Your task to perform on an android device: Open Youtube and go to the subscriptions tab Image 0: 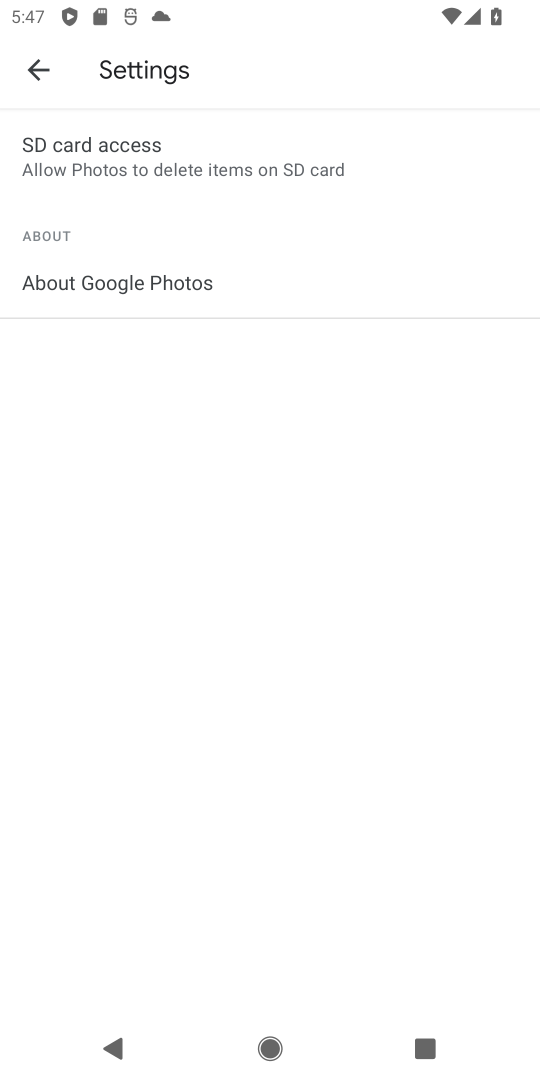
Step 0: press back button
Your task to perform on an android device: Open Youtube and go to the subscriptions tab Image 1: 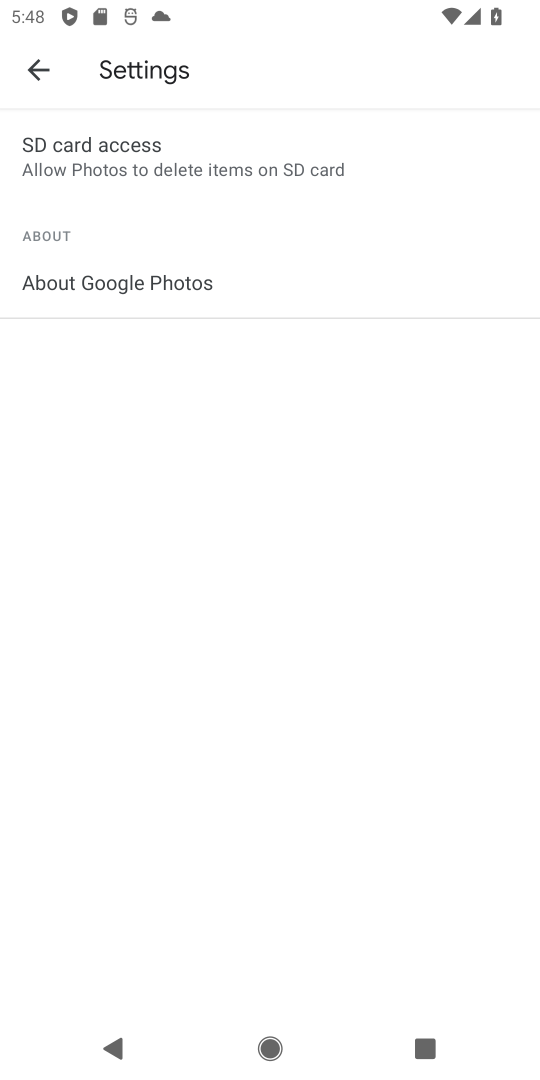
Step 1: click (29, 70)
Your task to perform on an android device: Open Youtube and go to the subscriptions tab Image 2: 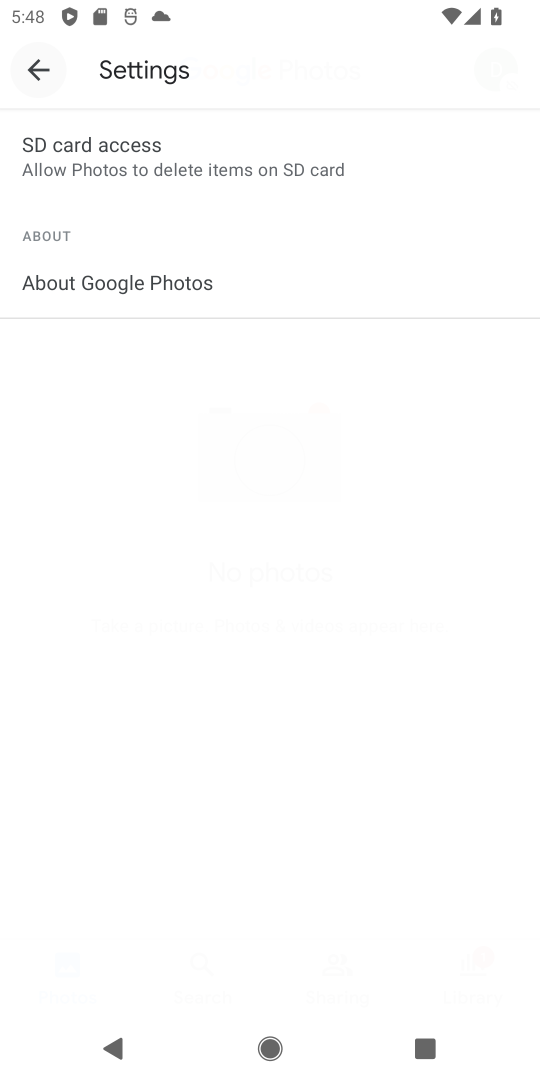
Step 2: press back button
Your task to perform on an android device: Open Youtube and go to the subscriptions tab Image 3: 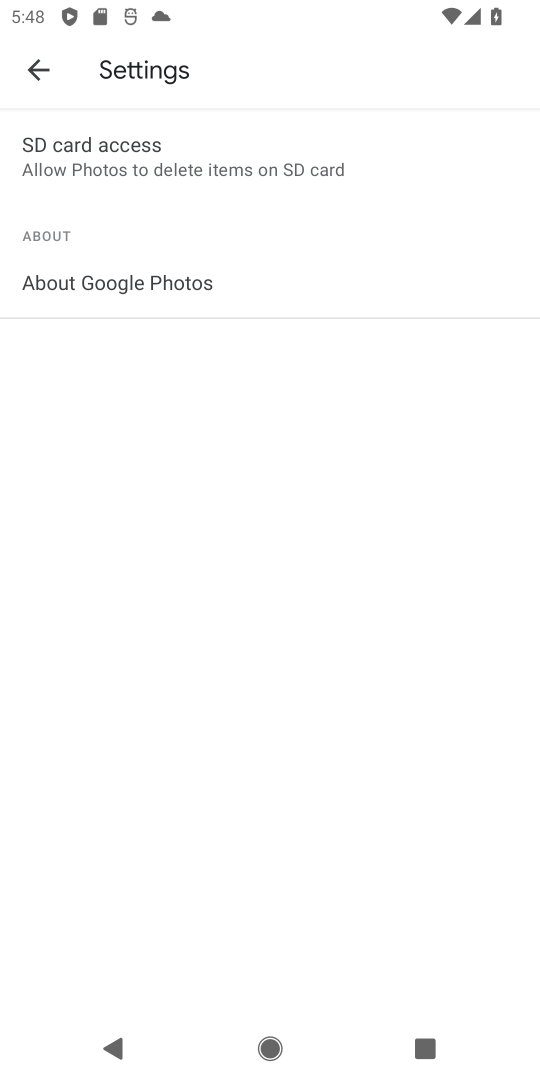
Step 3: press back button
Your task to perform on an android device: Open Youtube and go to the subscriptions tab Image 4: 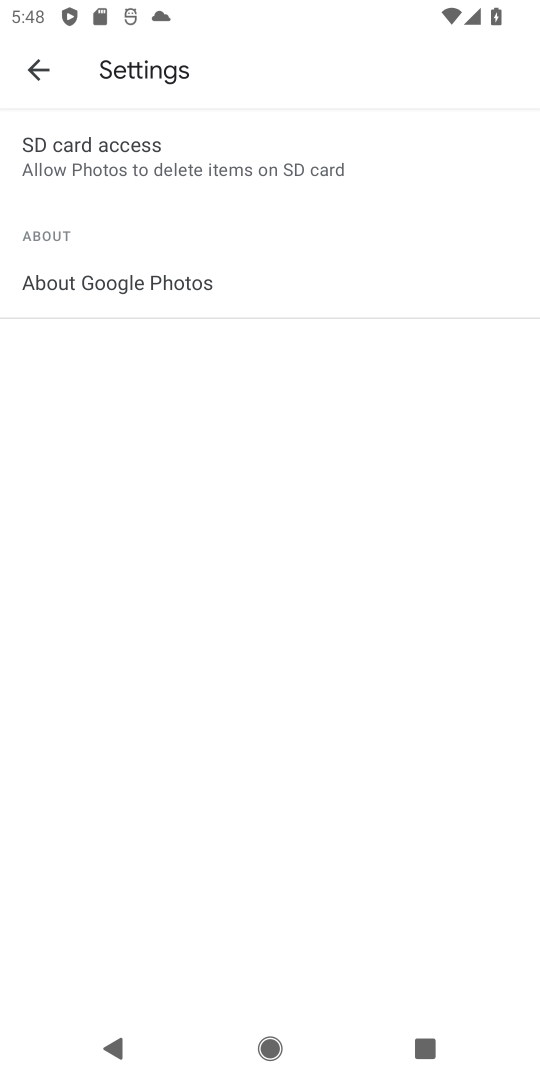
Step 4: press back button
Your task to perform on an android device: Open Youtube and go to the subscriptions tab Image 5: 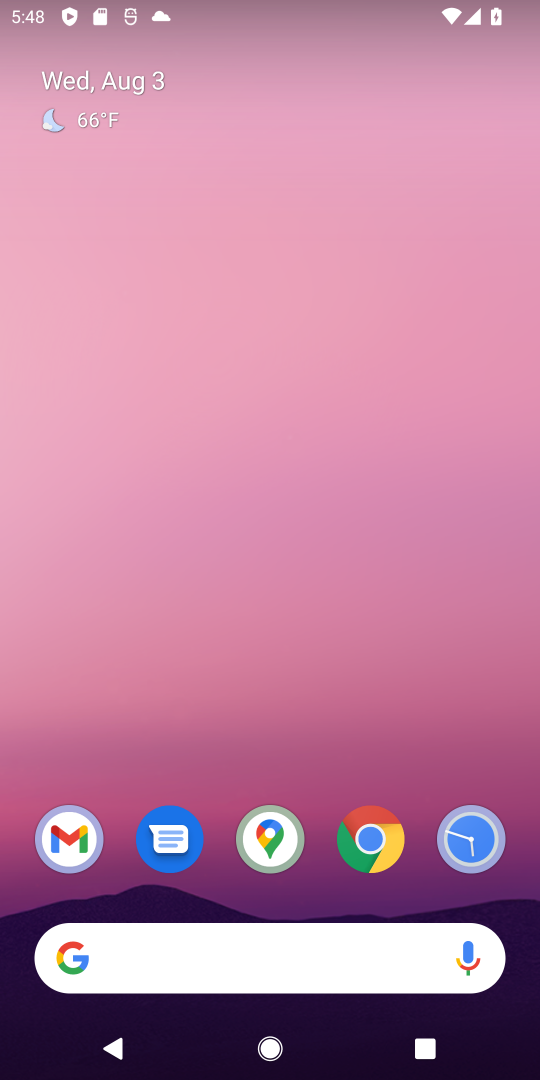
Step 5: drag from (416, 562) to (421, 90)
Your task to perform on an android device: Open Youtube and go to the subscriptions tab Image 6: 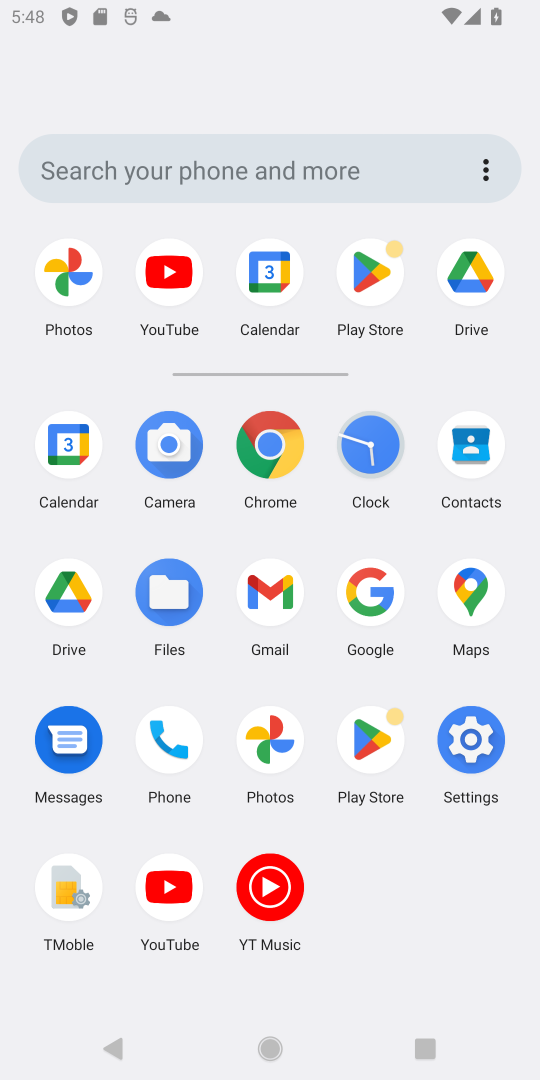
Step 6: click (177, 199)
Your task to perform on an android device: Open Youtube and go to the subscriptions tab Image 7: 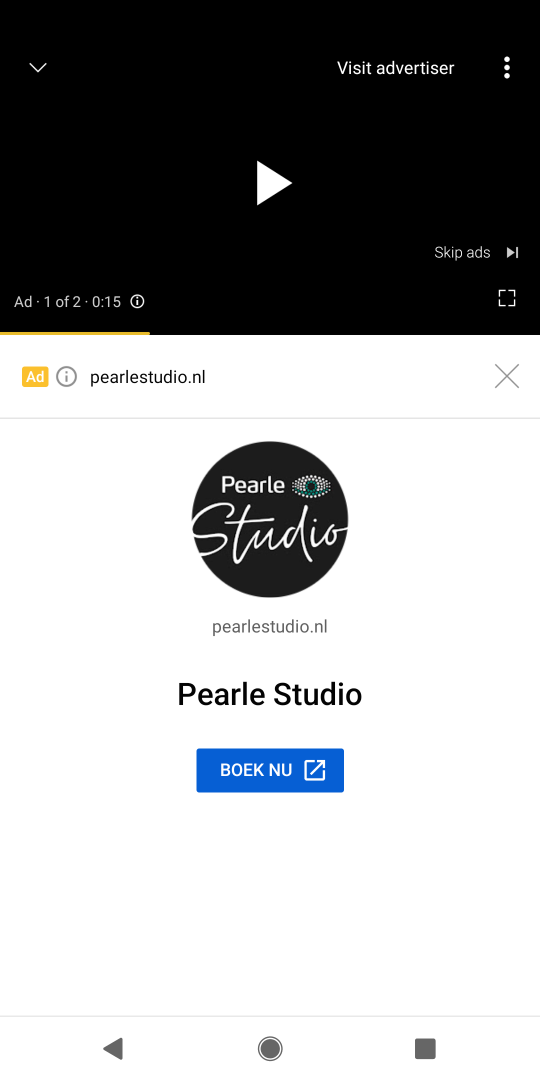
Step 7: click (477, 261)
Your task to perform on an android device: Open Youtube and go to the subscriptions tab Image 8: 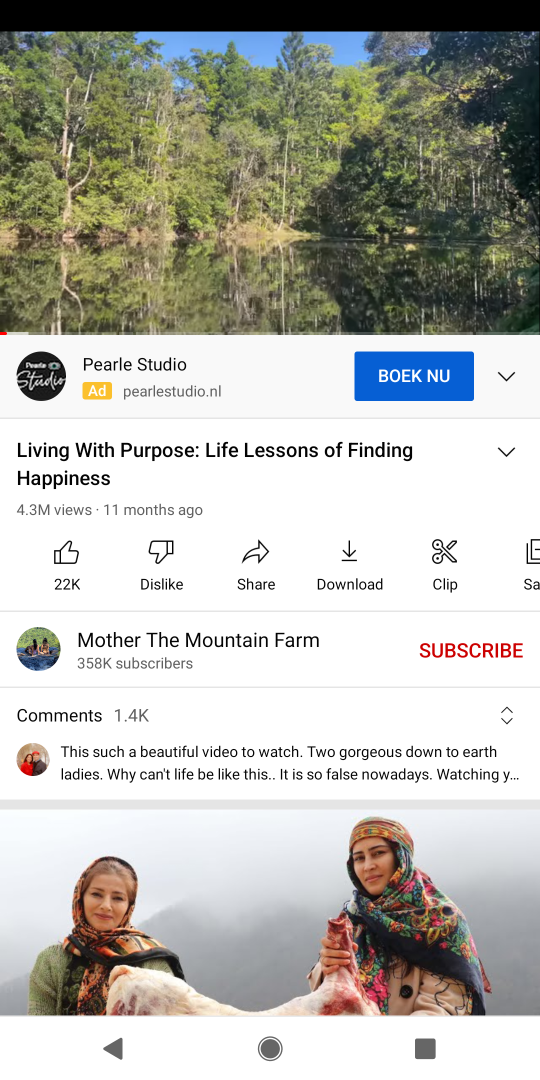
Step 8: click (126, 112)
Your task to perform on an android device: Open Youtube and go to the subscriptions tab Image 9: 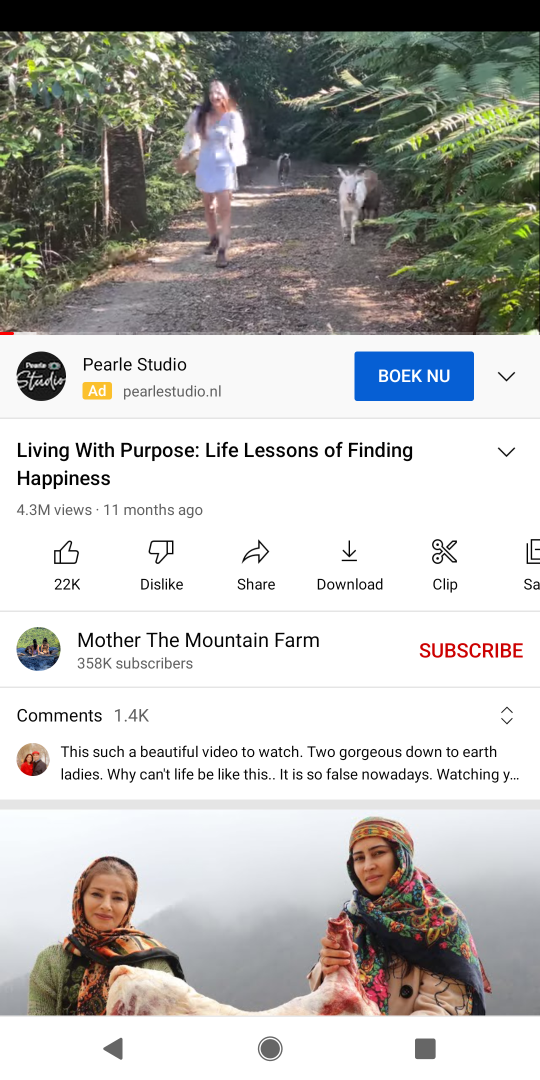
Step 9: press back button
Your task to perform on an android device: Open Youtube and go to the subscriptions tab Image 10: 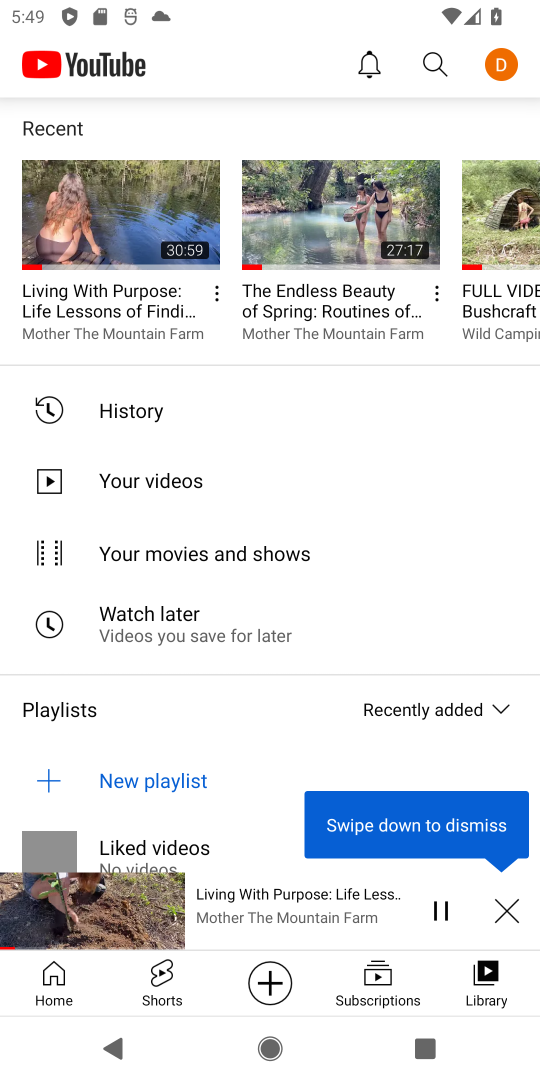
Step 10: click (381, 977)
Your task to perform on an android device: Open Youtube and go to the subscriptions tab Image 11: 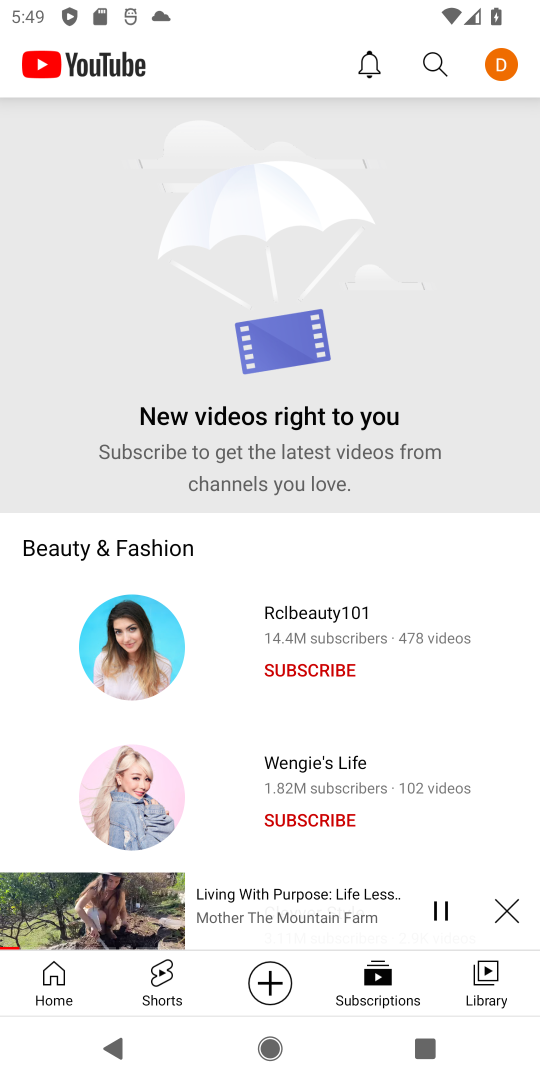
Step 11: task complete